Your task to perform on an android device: Search for flights from Buenos aires to Tokyo Image 0: 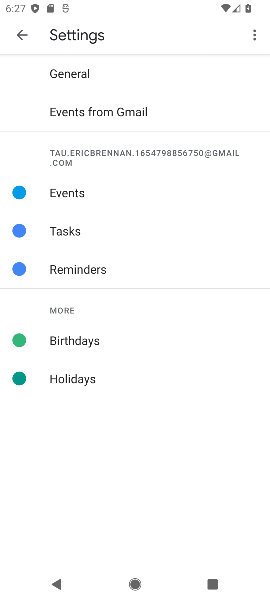
Step 0: press home button
Your task to perform on an android device: Search for flights from Buenos aires to Tokyo Image 1: 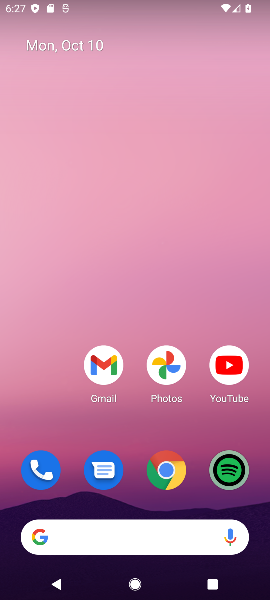
Step 1: click (167, 467)
Your task to perform on an android device: Search for flights from Buenos aires to Tokyo Image 2: 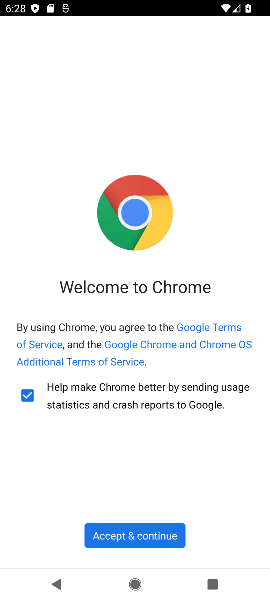
Step 2: click (113, 523)
Your task to perform on an android device: Search for flights from Buenos aires to Tokyo Image 3: 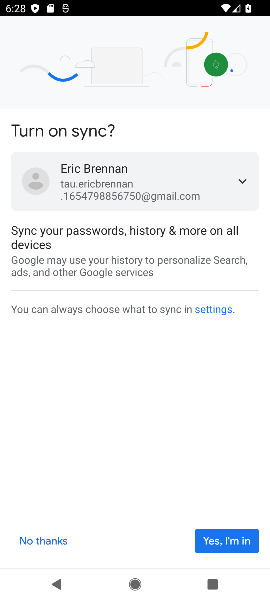
Step 3: click (195, 536)
Your task to perform on an android device: Search for flights from Buenos aires to Tokyo Image 4: 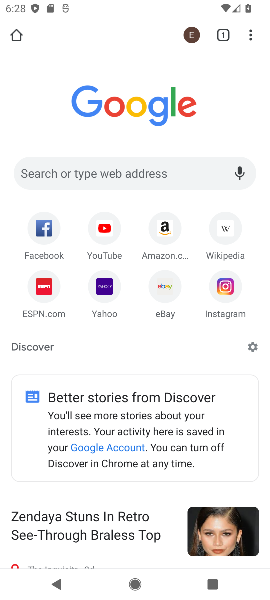
Step 4: click (109, 179)
Your task to perform on an android device: Search for flights from Buenos aires to Tokyo Image 5: 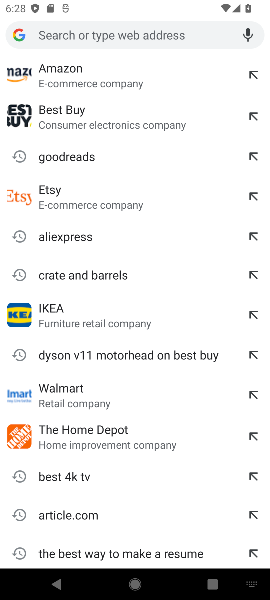
Step 5: type "flights from Buenos aires to Tokyo"
Your task to perform on an android device: Search for flights from Buenos aires to Tokyo Image 6: 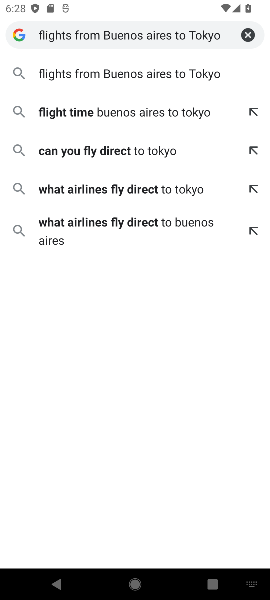
Step 6: click (137, 81)
Your task to perform on an android device: Search for flights from Buenos aires to Tokyo Image 7: 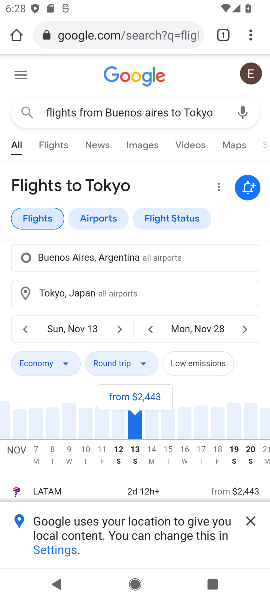
Step 7: task complete